Your task to perform on an android device: turn on translation in the chrome app Image 0: 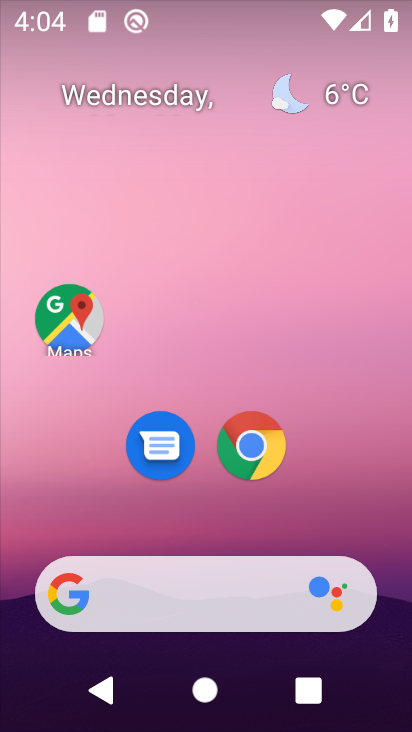
Step 0: click (257, 434)
Your task to perform on an android device: turn on translation in the chrome app Image 1: 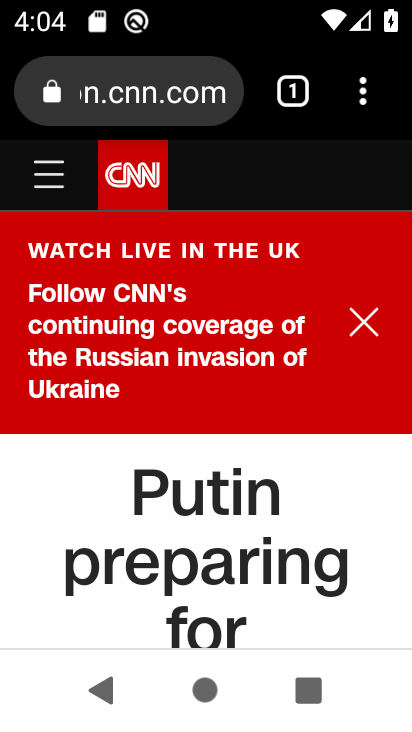
Step 1: click (362, 101)
Your task to perform on an android device: turn on translation in the chrome app Image 2: 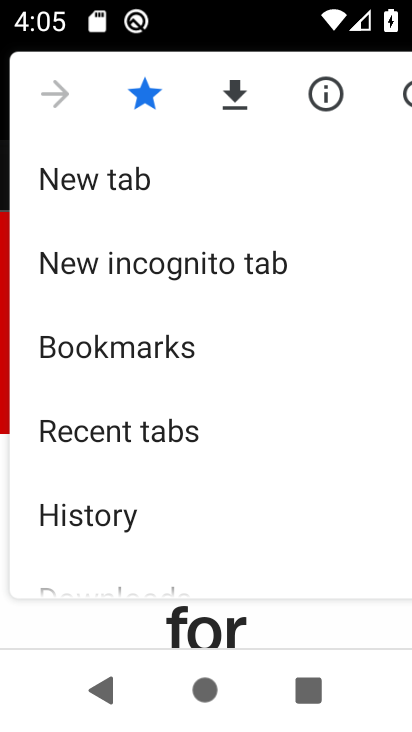
Step 2: drag from (162, 448) to (186, 188)
Your task to perform on an android device: turn on translation in the chrome app Image 3: 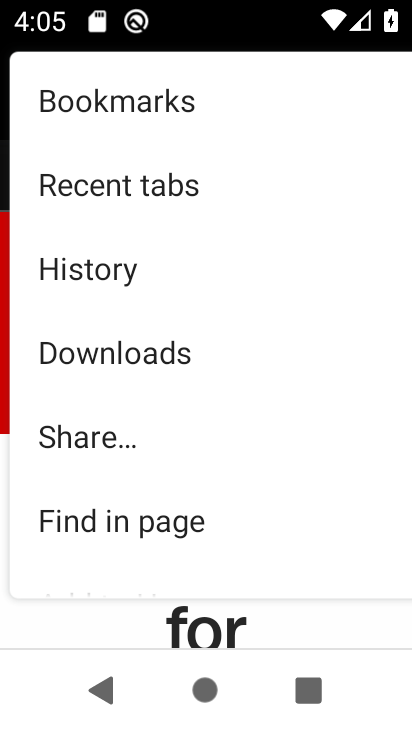
Step 3: drag from (120, 517) to (144, 148)
Your task to perform on an android device: turn on translation in the chrome app Image 4: 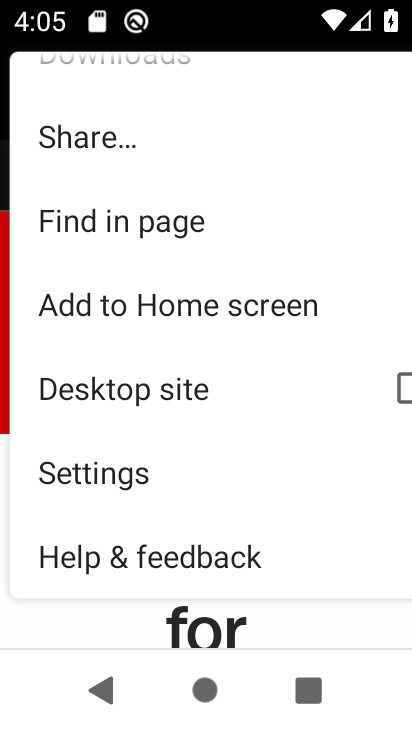
Step 4: click (122, 490)
Your task to perform on an android device: turn on translation in the chrome app Image 5: 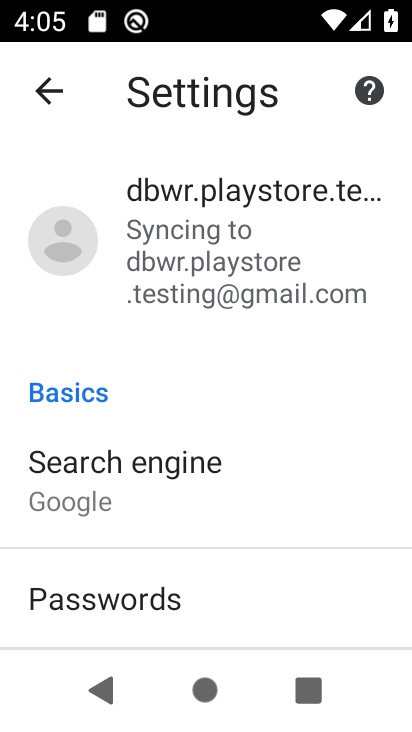
Step 5: drag from (156, 583) to (212, 88)
Your task to perform on an android device: turn on translation in the chrome app Image 6: 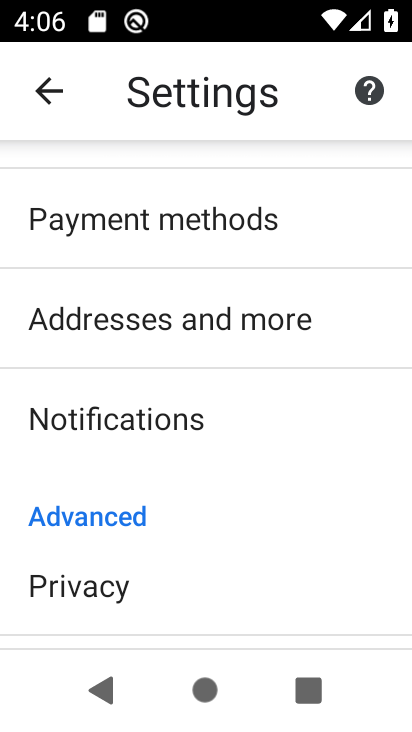
Step 6: drag from (154, 484) to (188, 203)
Your task to perform on an android device: turn on translation in the chrome app Image 7: 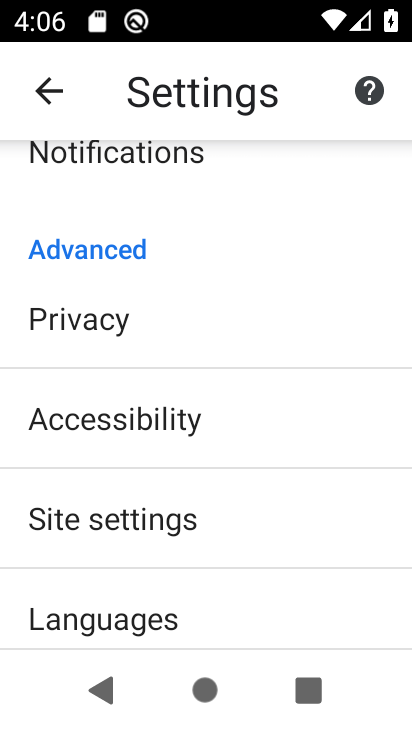
Step 7: drag from (146, 506) to (174, 291)
Your task to perform on an android device: turn on translation in the chrome app Image 8: 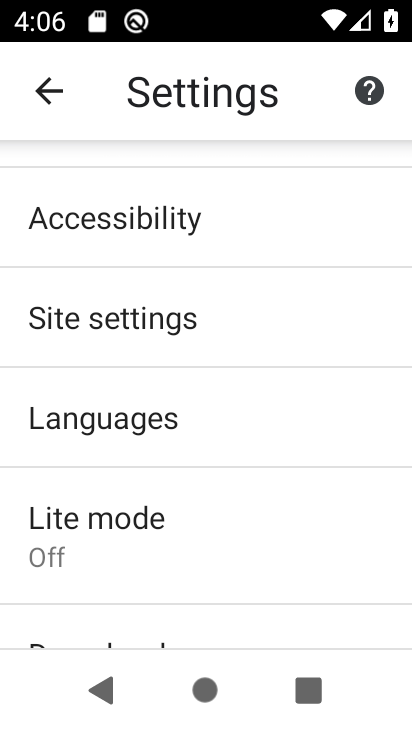
Step 8: click (135, 427)
Your task to perform on an android device: turn on translation in the chrome app Image 9: 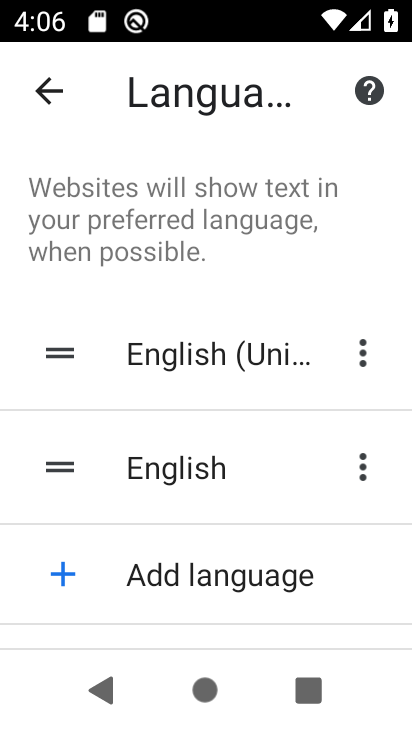
Step 9: drag from (267, 559) to (264, 238)
Your task to perform on an android device: turn on translation in the chrome app Image 10: 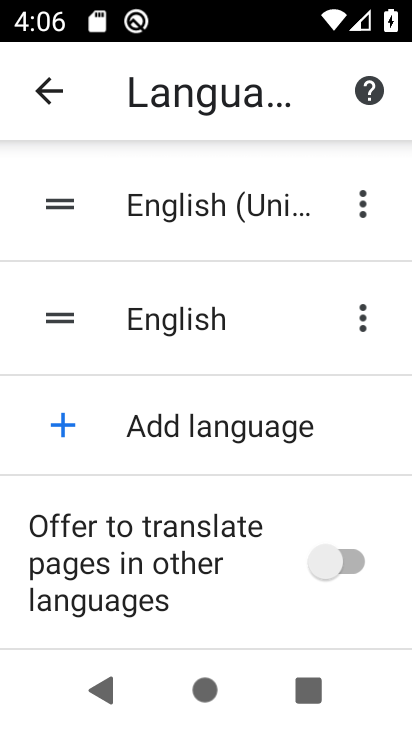
Step 10: click (343, 569)
Your task to perform on an android device: turn on translation in the chrome app Image 11: 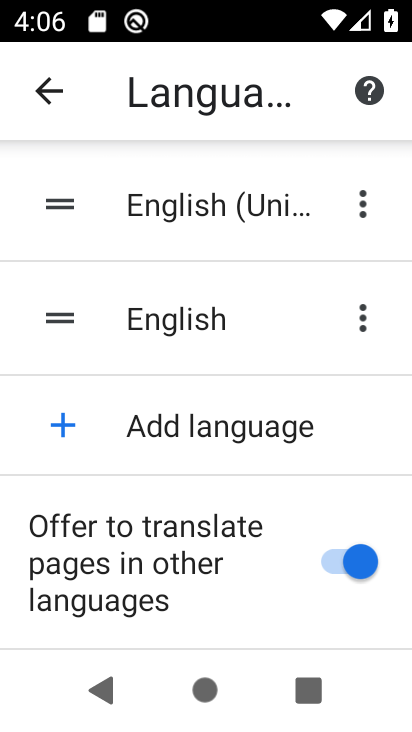
Step 11: task complete